Your task to perform on an android device: check battery use Image 0: 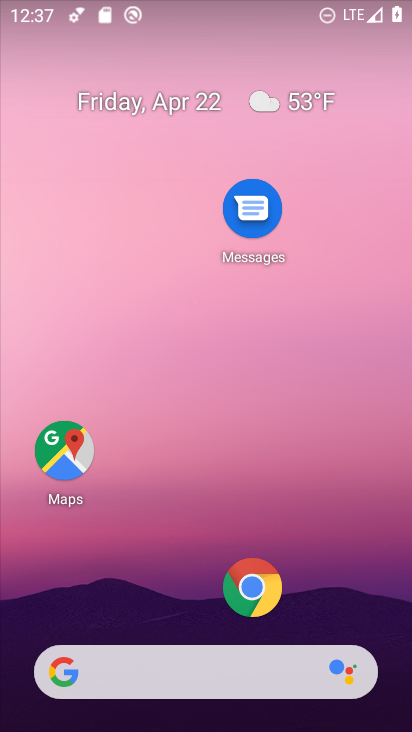
Step 0: drag from (180, 621) to (230, 287)
Your task to perform on an android device: check battery use Image 1: 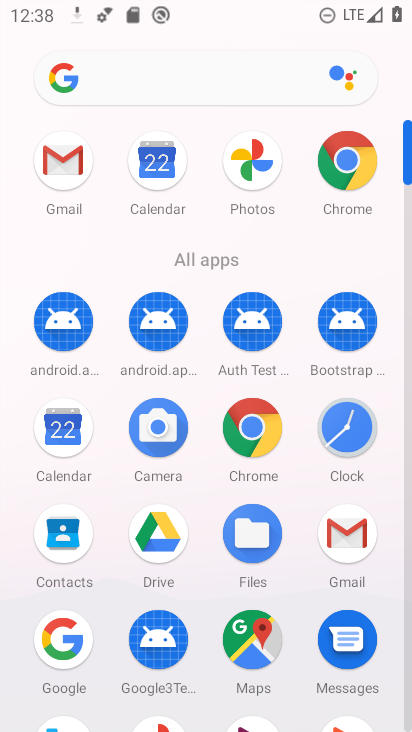
Step 1: drag from (299, 542) to (330, 276)
Your task to perform on an android device: check battery use Image 2: 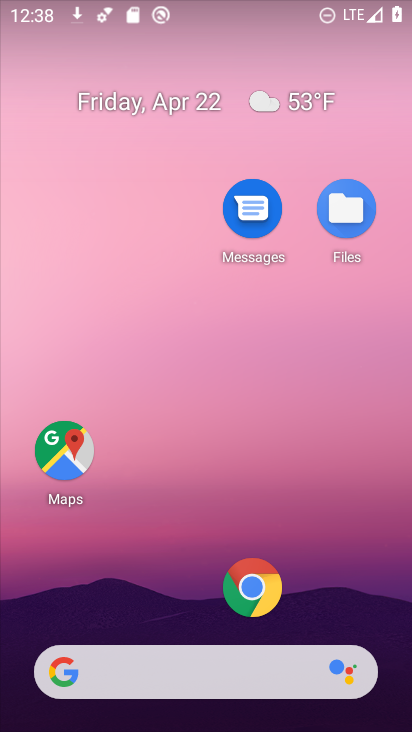
Step 2: press home button
Your task to perform on an android device: check battery use Image 3: 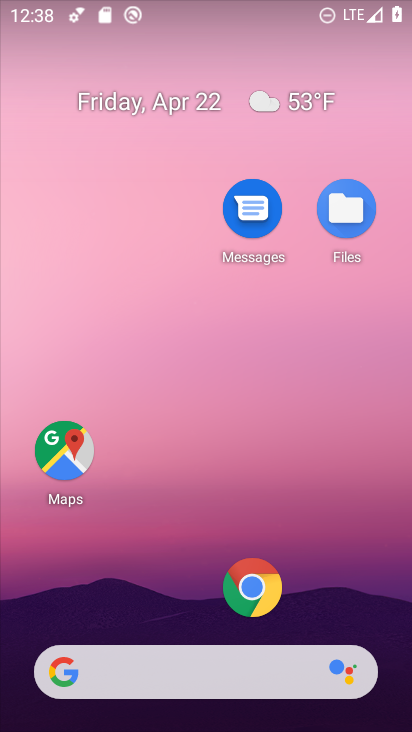
Step 3: click (228, 191)
Your task to perform on an android device: check battery use Image 4: 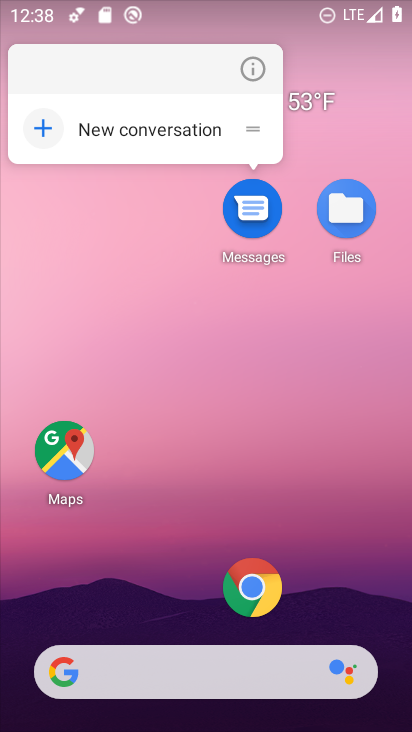
Step 4: click (292, 462)
Your task to perform on an android device: check battery use Image 5: 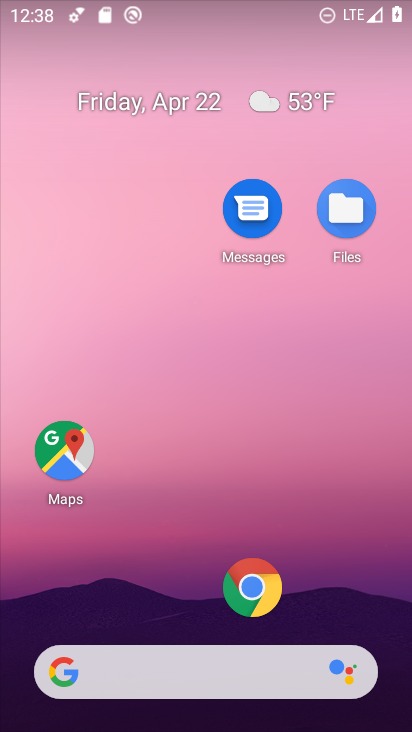
Step 5: drag from (107, 606) to (175, 97)
Your task to perform on an android device: check battery use Image 6: 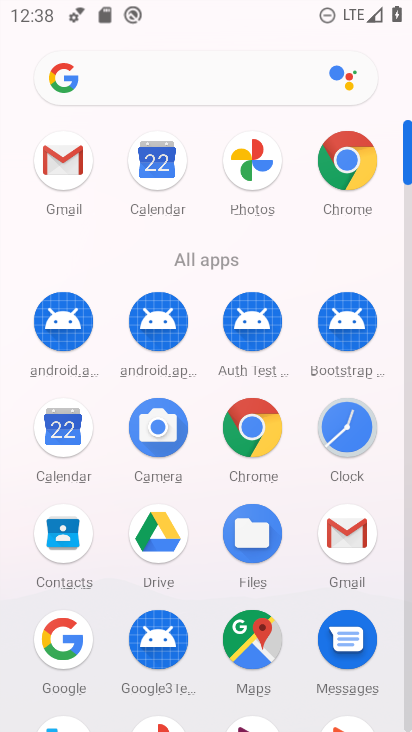
Step 6: drag from (209, 670) to (256, 321)
Your task to perform on an android device: check battery use Image 7: 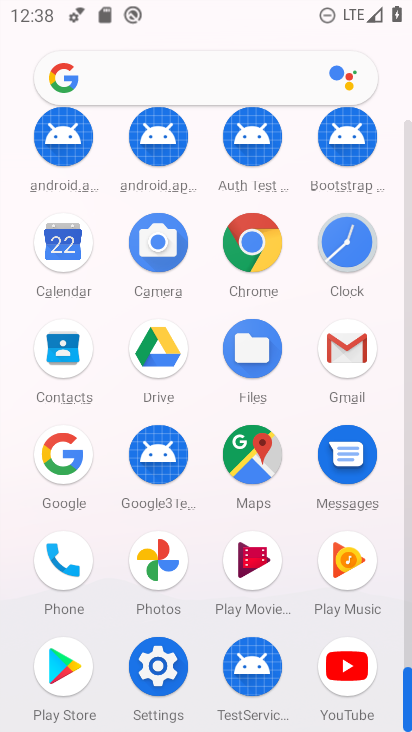
Step 7: click (156, 653)
Your task to perform on an android device: check battery use Image 8: 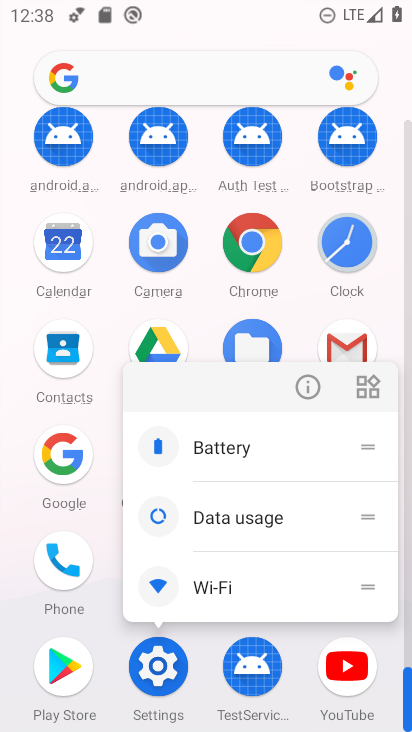
Step 8: click (313, 388)
Your task to perform on an android device: check battery use Image 9: 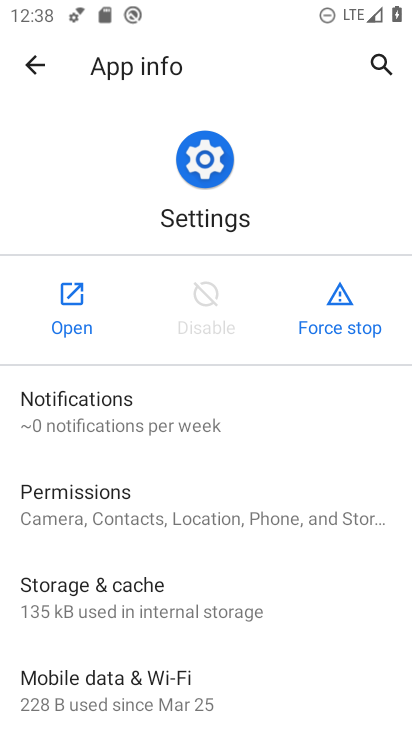
Step 9: click (75, 316)
Your task to perform on an android device: check battery use Image 10: 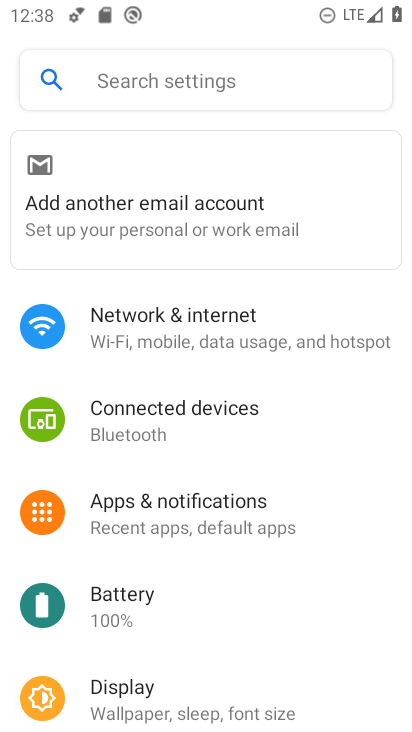
Step 10: click (136, 593)
Your task to perform on an android device: check battery use Image 11: 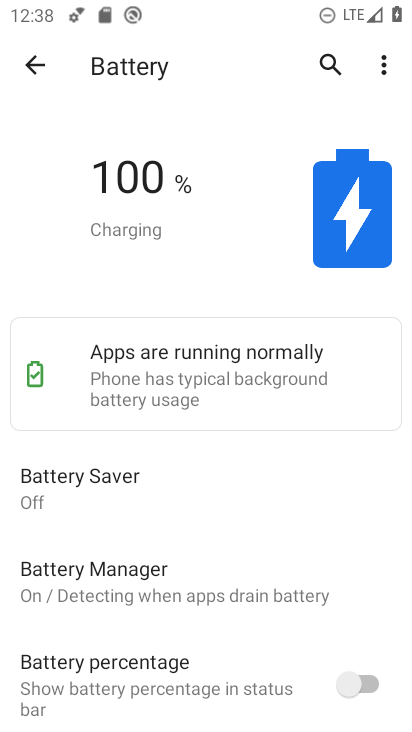
Step 11: task complete